Your task to perform on an android device: open a bookmark in the chrome app Image 0: 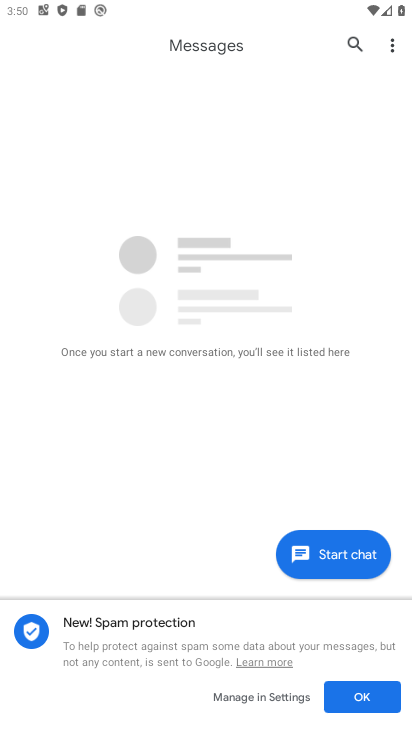
Step 0: press home button
Your task to perform on an android device: open a bookmark in the chrome app Image 1: 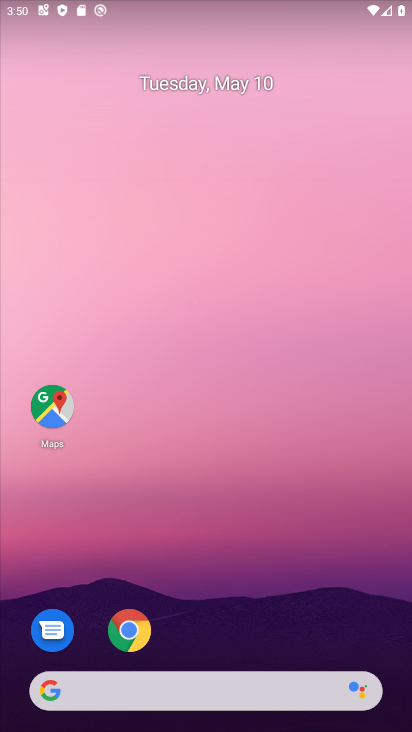
Step 1: click (129, 625)
Your task to perform on an android device: open a bookmark in the chrome app Image 2: 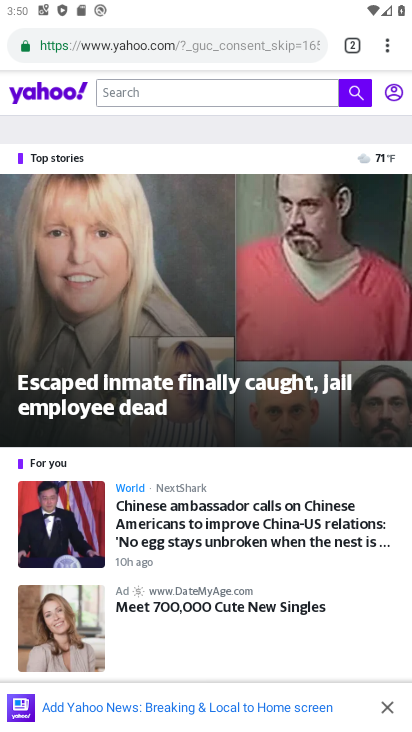
Step 2: click (380, 48)
Your task to perform on an android device: open a bookmark in the chrome app Image 3: 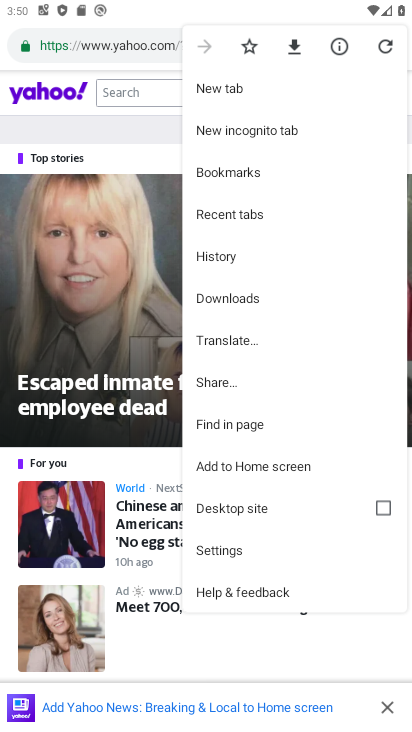
Step 3: click (259, 160)
Your task to perform on an android device: open a bookmark in the chrome app Image 4: 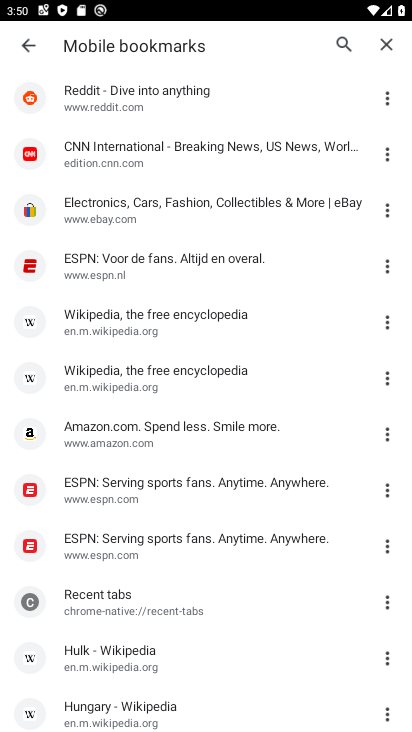
Step 4: click (98, 698)
Your task to perform on an android device: open a bookmark in the chrome app Image 5: 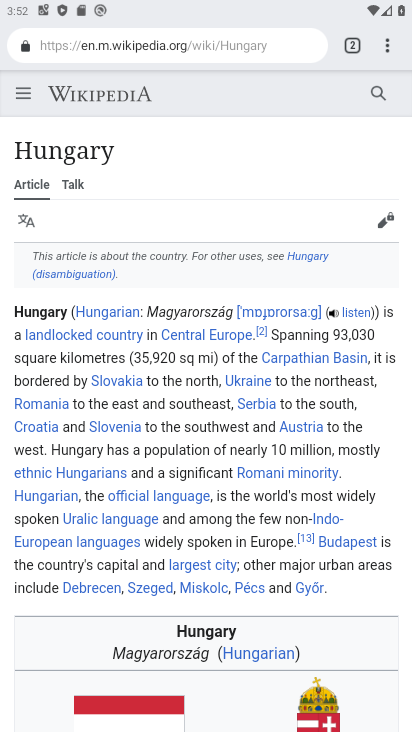
Step 5: click (381, 47)
Your task to perform on an android device: open a bookmark in the chrome app Image 6: 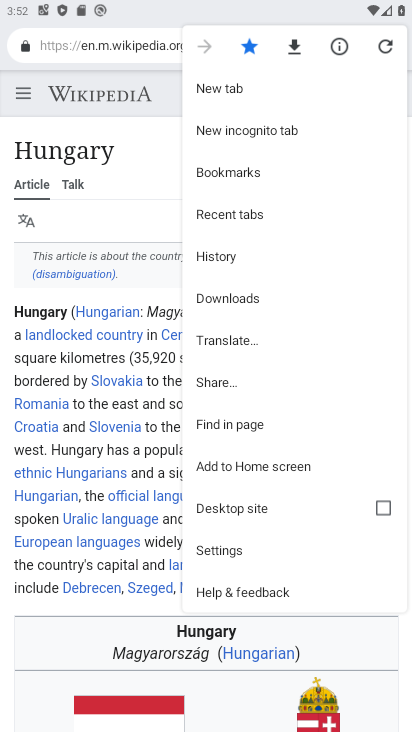
Step 6: task complete